Your task to perform on an android device: Turn off the flashlight Image 0: 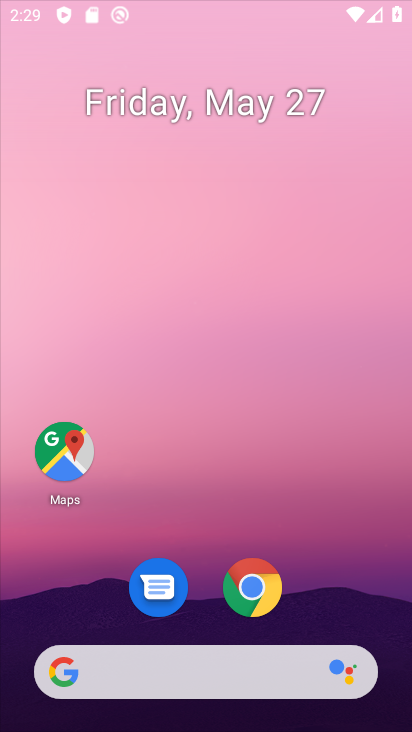
Step 0: press home button
Your task to perform on an android device: Turn off the flashlight Image 1: 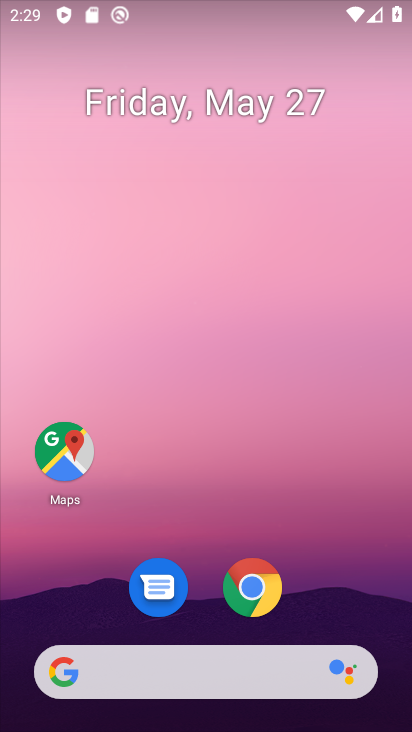
Step 1: task complete